Your task to perform on an android device: Open Google Maps and go to "Timeline" Image 0: 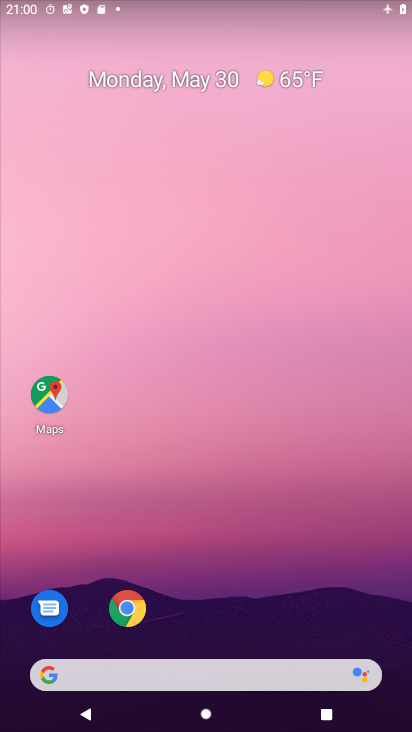
Step 0: click (58, 403)
Your task to perform on an android device: Open Google Maps and go to "Timeline" Image 1: 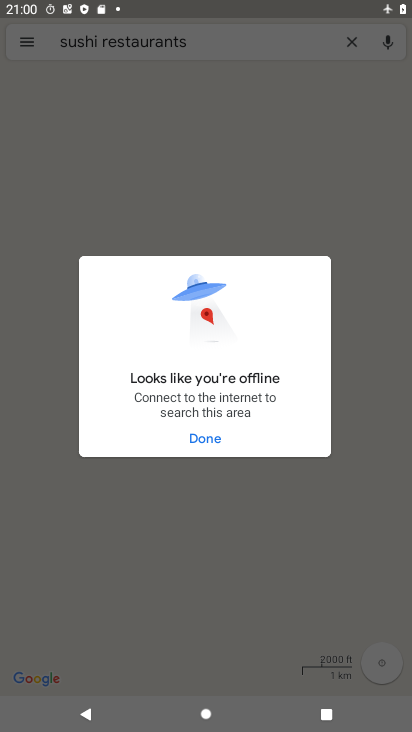
Step 1: click (204, 447)
Your task to perform on an android device: Open Google Maps and go to "Timeline" Image 2: 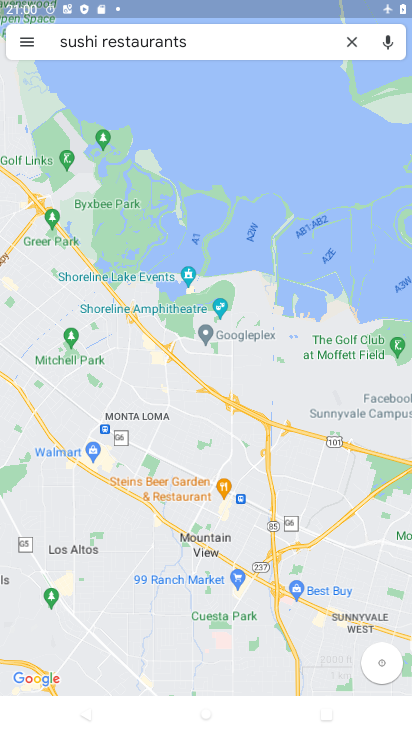
Step 2: task complete